Your task to perform on an android device: toggle airplane mode Image 0: 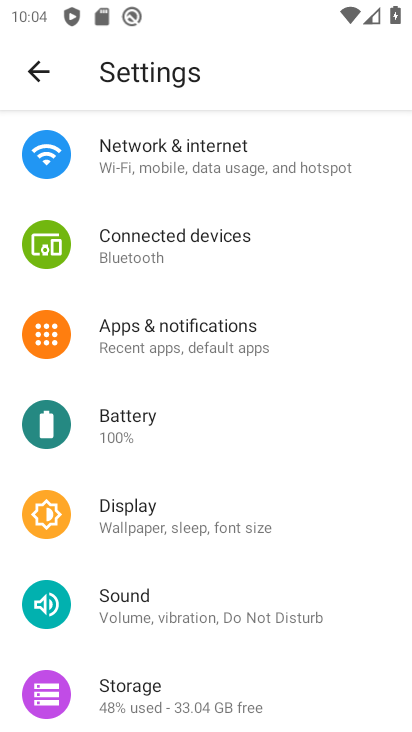
Step 0: click (194, 168)
Your task to perform on an android device: toggle airplane mode Image 1: 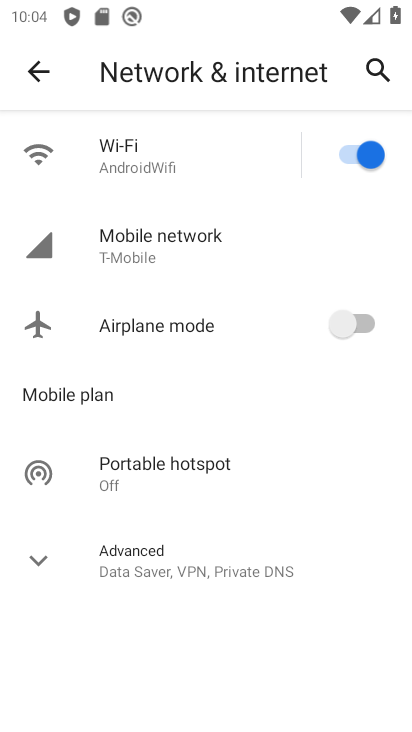
Step 1: click (354, 333)
Your task to perform on an android device: toggle airplane mode Image 2: 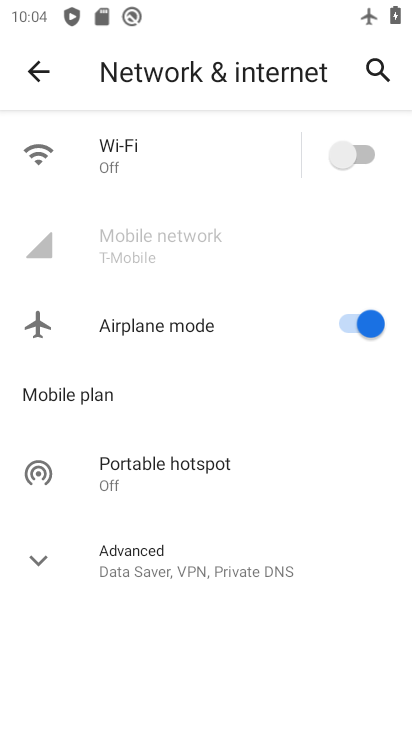
Step 2: task complete